Your task to perform on an android device: Go to location settings Image 0: 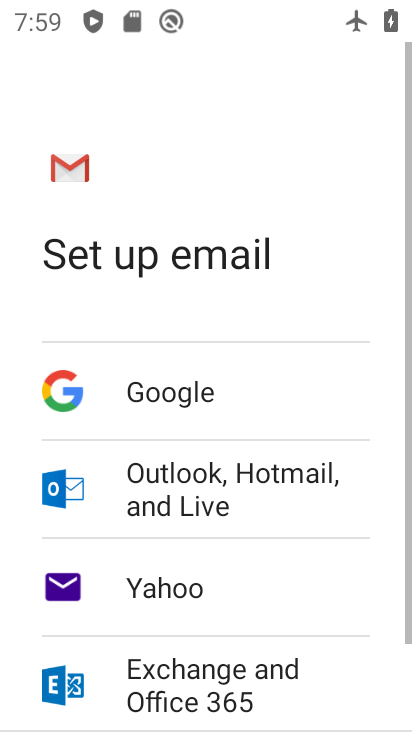
Step 0: press home button
Your task to perform on an android device: Go to location settings Image 1: 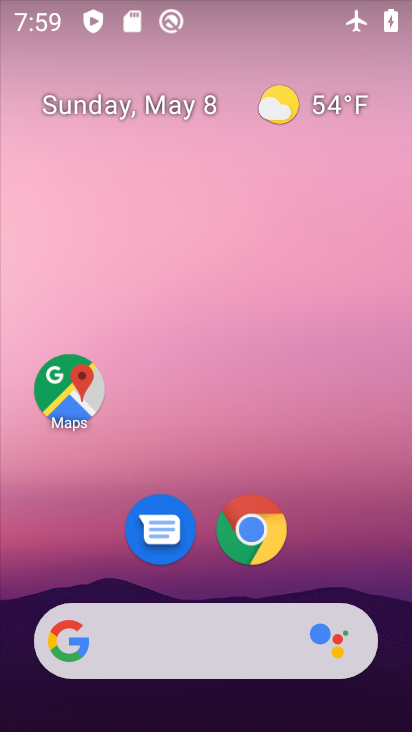
Step 1: drag from (368, 582) to (365, 128)
Your task to perform on an android device: Go to location settings Image 2: 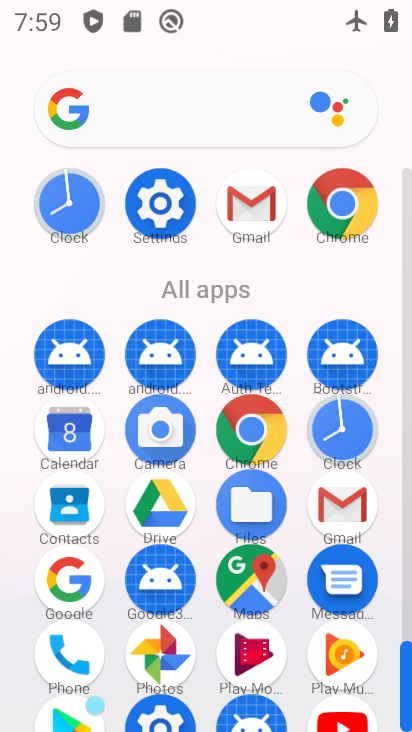
Step 2: click (156, 194)
Your task to perform on an android device: Go to location settings Image 3: 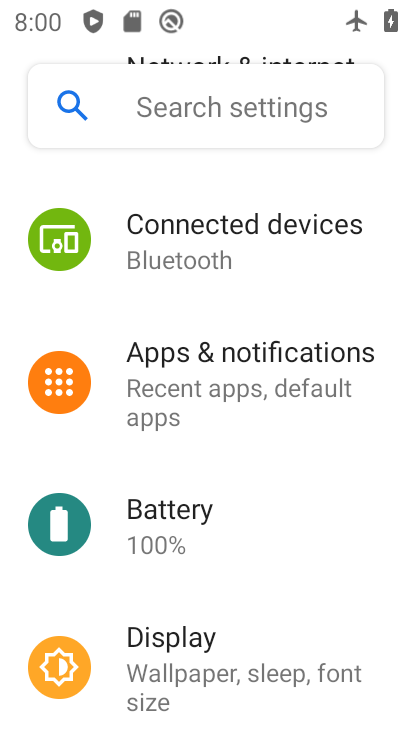
Step 3: drag from (241, 609) to (237, 209)
Your task to perform on an android device: Go to location settings Image 4: 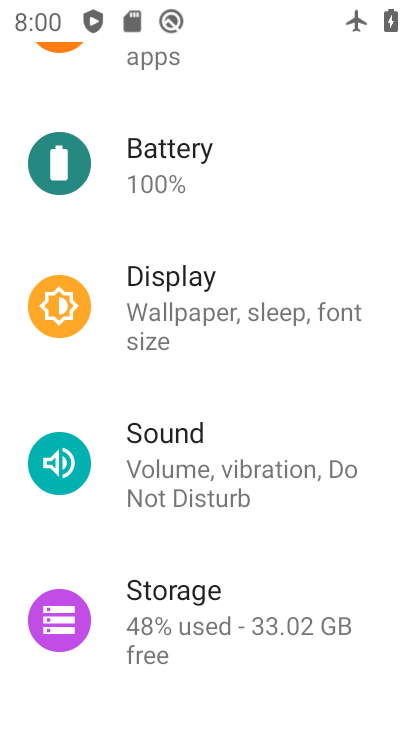
Step 4: drag from (246, 610) to (253, 371)
Your task to perform on an android device: Go to location settings Image 5: 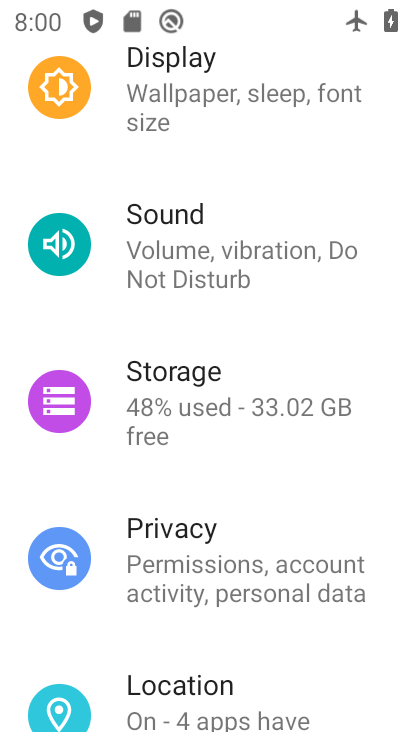
Step 5: click (230, 686)
Your task to perform on an android device: Go to location settings Image 6: 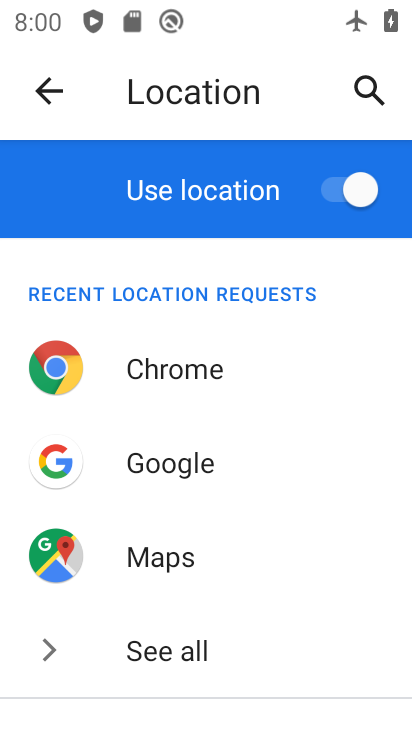
Step 6: task complete